Your task to perform on an android device: Go to eBay Image 0: 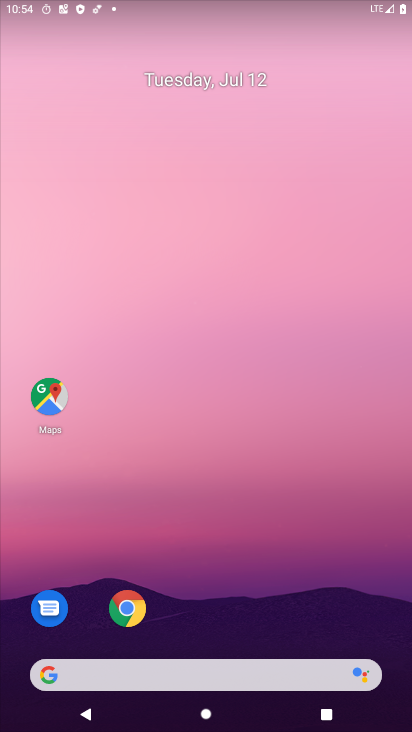
Step 0: click (123, 608)
Your task to perform on an android device: Go to eBay Image 1: 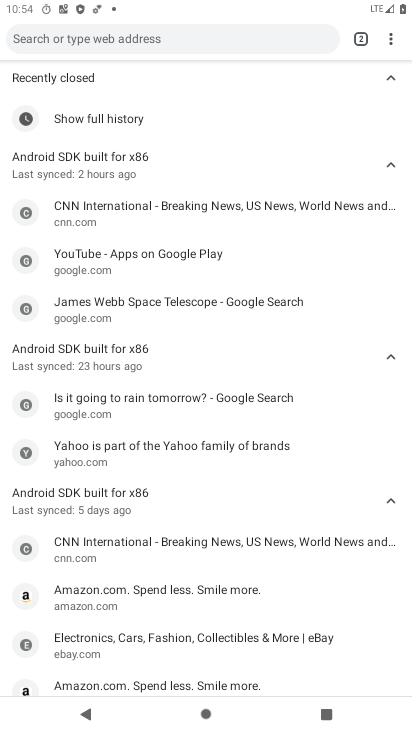
Step 1: click (148, 39)
Your task to perform on an android device: Go to eBay Image 2: 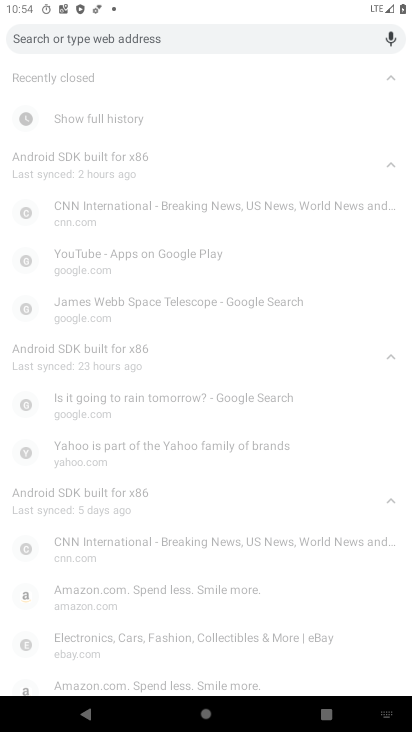
Step 2: type "ebay"
Your task to perform on an android device: Go to eBay Image 3: 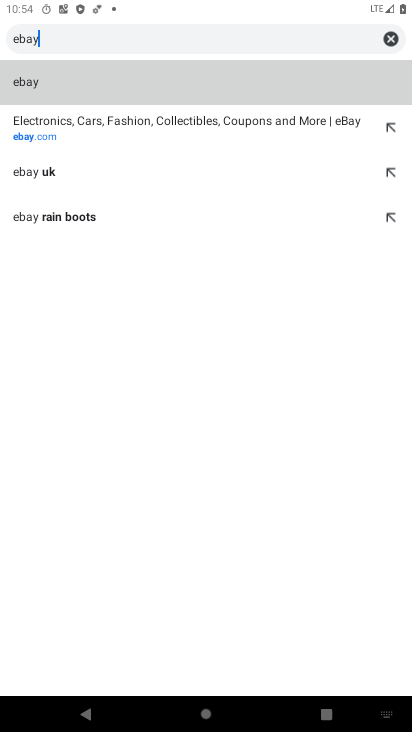
Step 3: click (41, 71)
Your task to perform on an android device: Go to eBay Image 4: 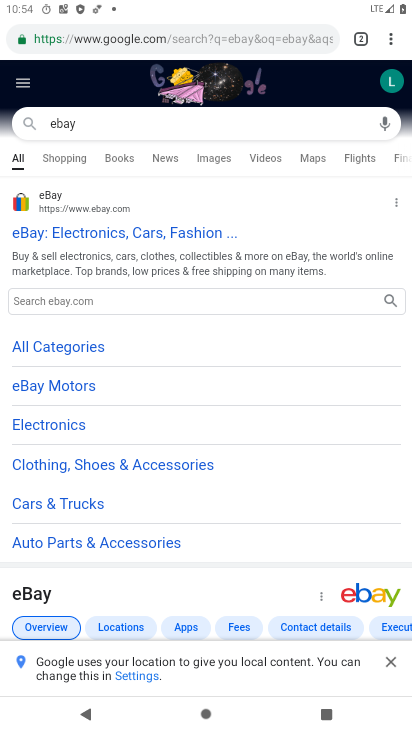
Step 4: click (44, 225)
Your task to perform on an android device: Go to eBay Image 5: 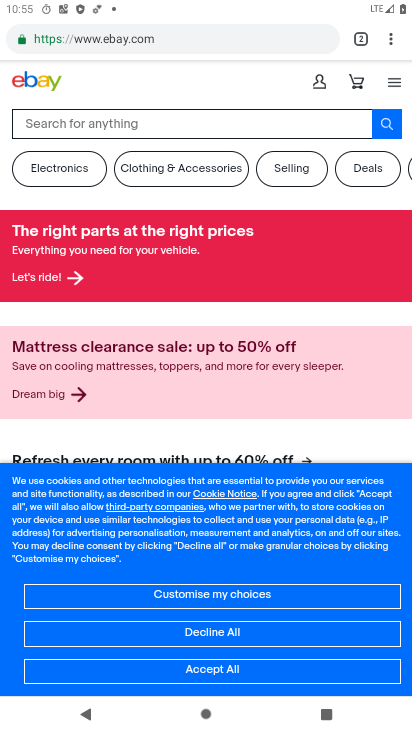
Step 5: task complete